Your task to perform on an android device: change notification settings in the gmail app Image 0: 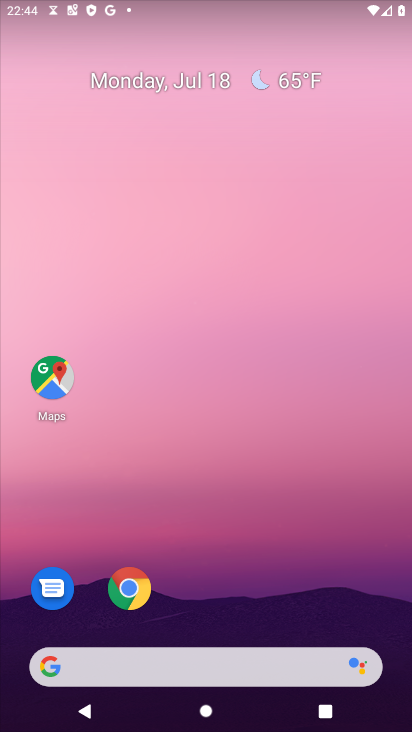
Step 0: drag from (196, 671) to (250, 76)
Your task to perform on an android device: change notification settings in the gmail app Image 1: 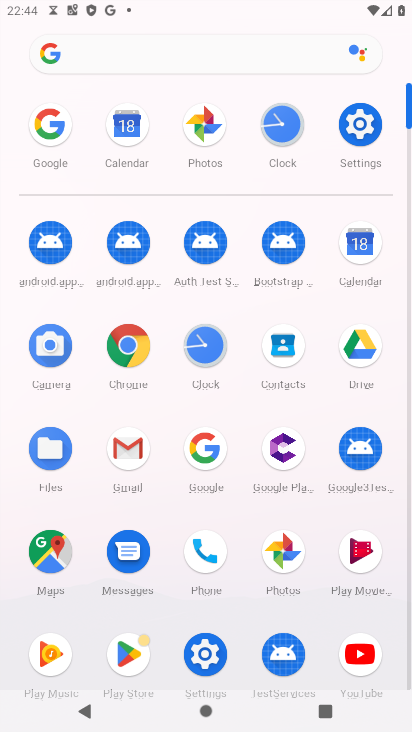
Step 1: click (123, 449)
Your task to perform on an android device: change notification settings in the gmail app Image 2: 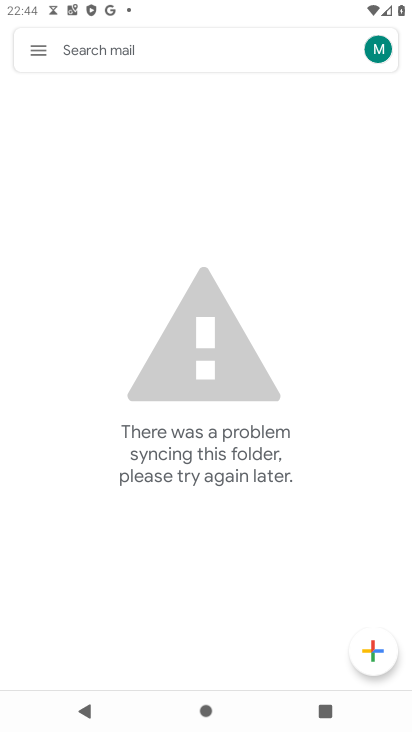
Step 2: click (42, 48)
Your task to perform on an android device: change notification settings in the gmail app Image 3: 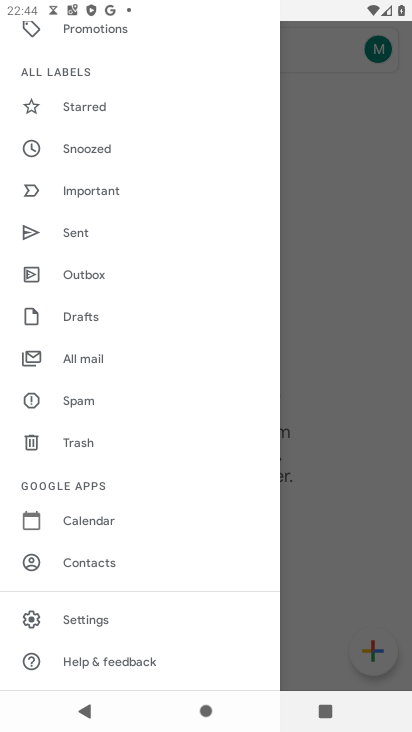
Step 3: drag from (127, 489) to (206, 370)
Your task to perform on an android device: change notification settings in the gmail app Image 4: 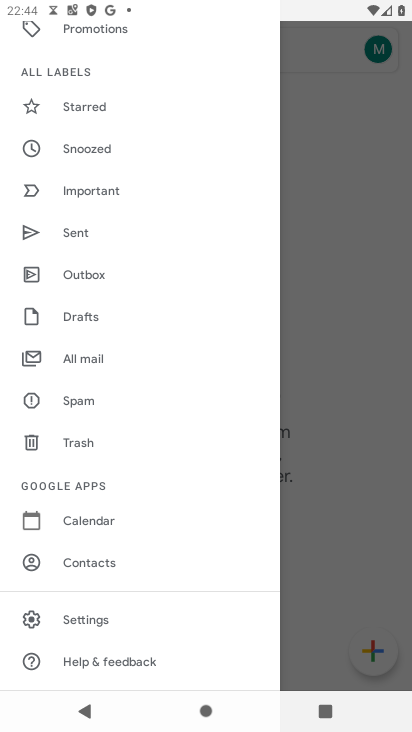
Step 4: click (96, 615)
Your task to perform on an android device: change notification settings in the gmail app Image 5: 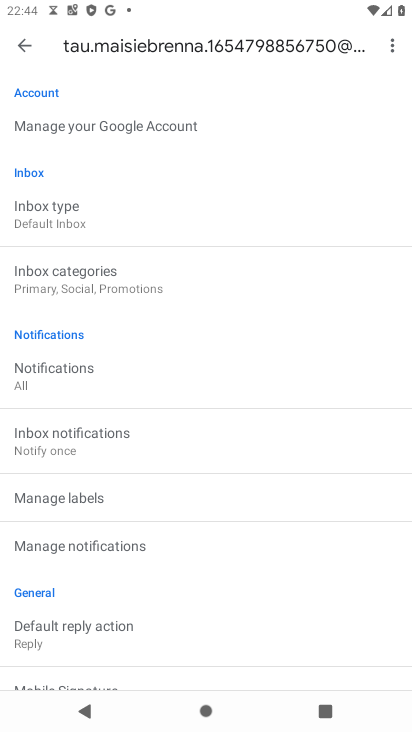
Step 5: click (126, 545)
Your task to perform on an android device: change notification settings in the gmail app Image 6: 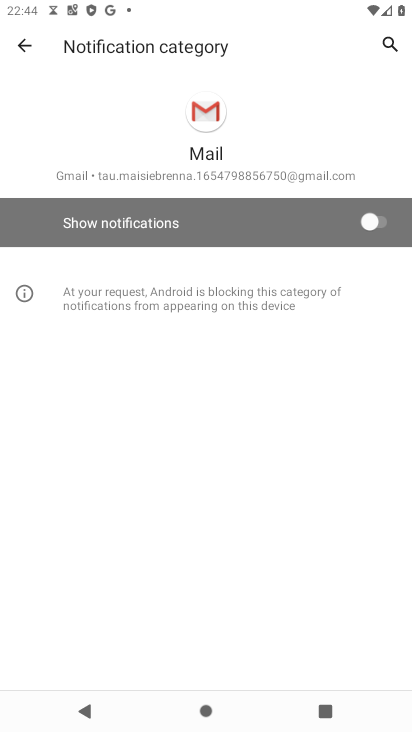
Step 6: click (370, 218)
Your task to perform on an android device: change notification settings in the gmail app Image 7: 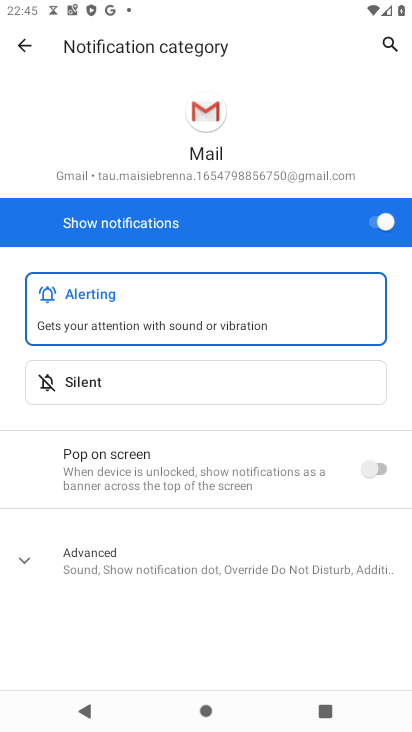
Step 7: task complete